Your task to perform on an android device: add a contact in the contacts app Image 0: 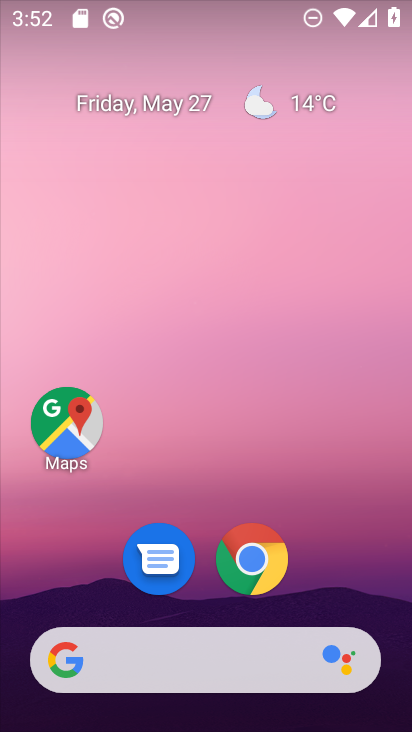
Step 0: drag from (265, 555) to (230, 0)
Your task to perform on an android device: add a contact in the contacts app Image 1: 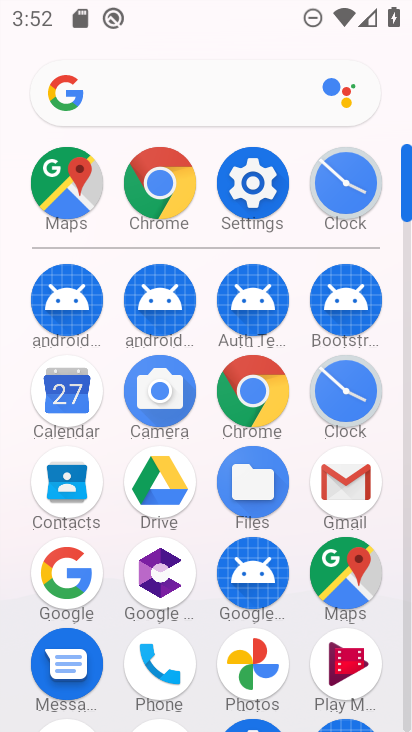
Step 1: click (58, 476)
Your task to perform on an android device: add a contact in the contacts app Image 2: 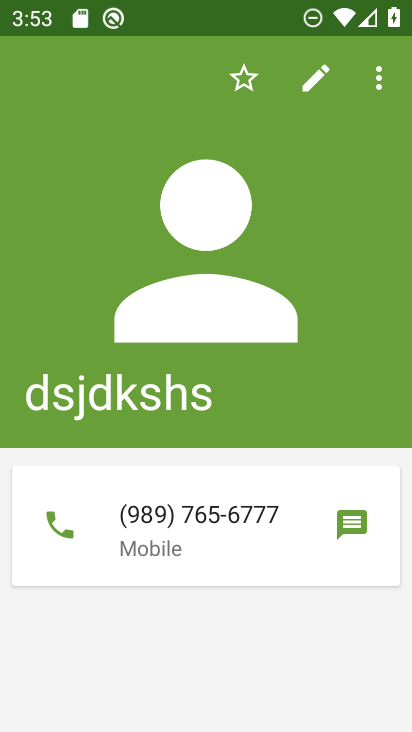
Step 2: press back button
Your task to perform on an android device: add a contact in the contacts app Image 3: 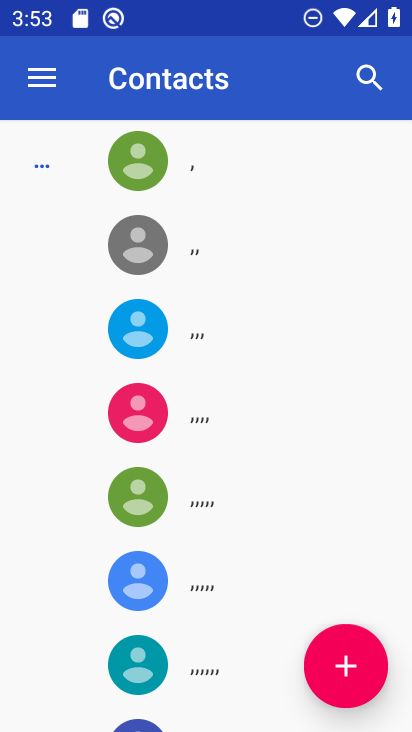
Step 3: click (358, 649)
Your task to perform on an android device: add a contact in the contacts app Image 4: 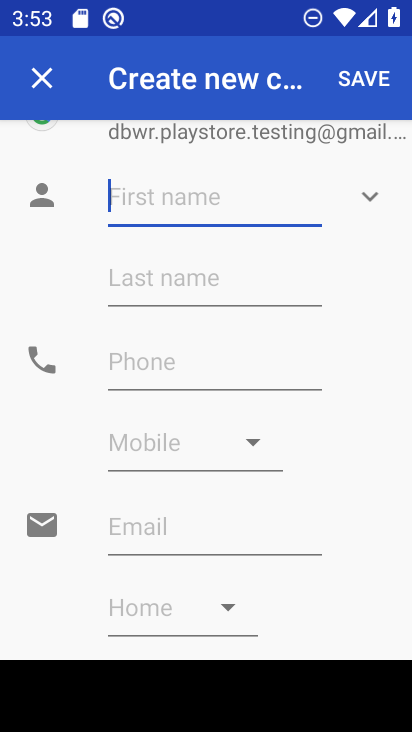
Step 4: type "gfdhggfjhj"
Your task to perform on an android device: add a contact in the contacts app Image 5: 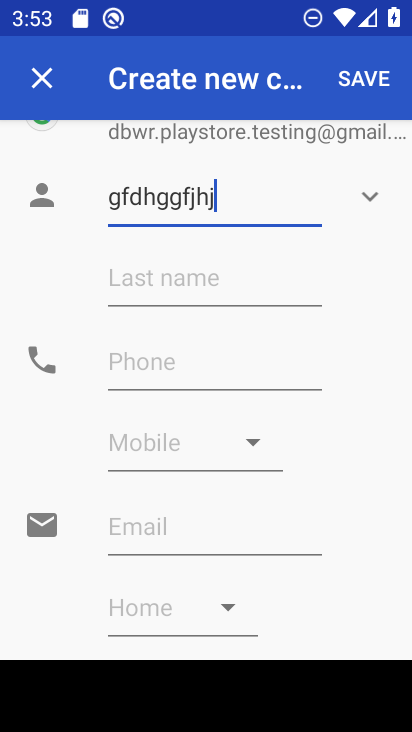
Step 5: click (160, 376)
Your task to perform on an android device: add a contact in the contacts app Image 6: 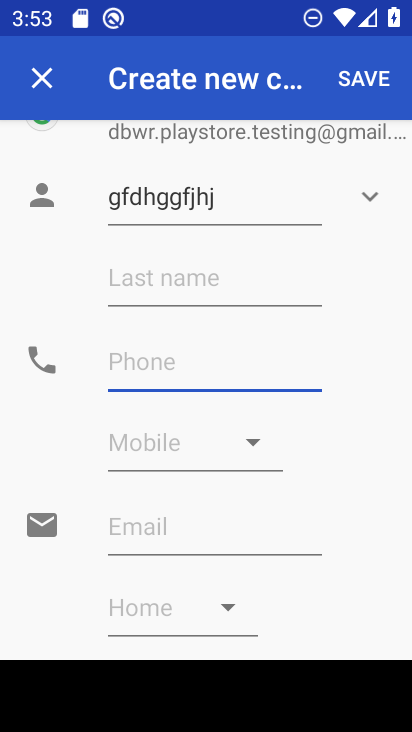
Step 6: type "987979796"
Your task to perform on an android device: add a contact in the contacts app Image 7: 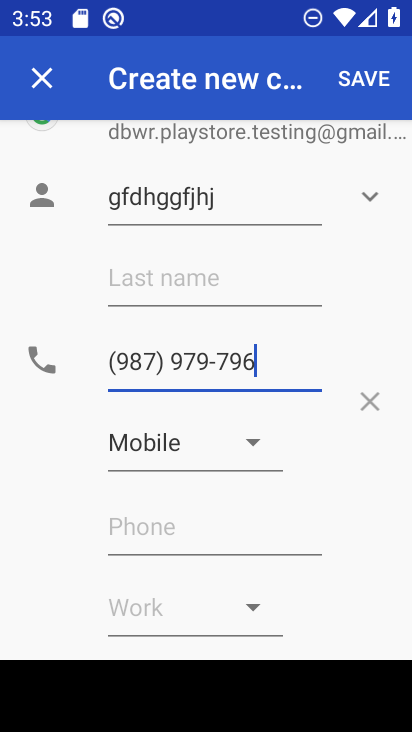
Step 7: click (368, 79)
Your task to perform on an android device: add a contact in the contacts app Image 8: 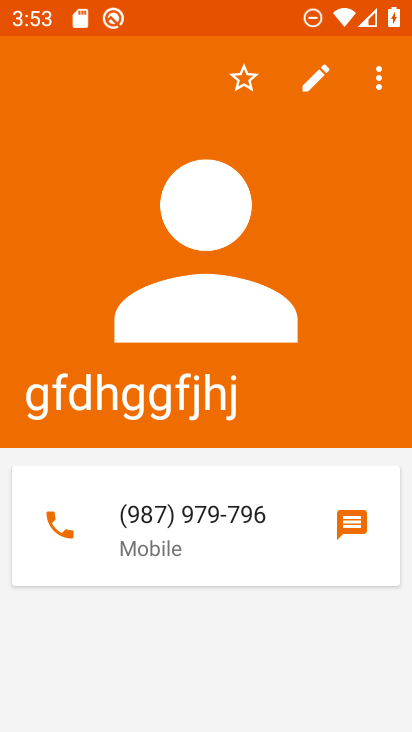
Step 8: task complete